Your task to perform on an android device: remove spam from my inbox in the gmail app Image 0: 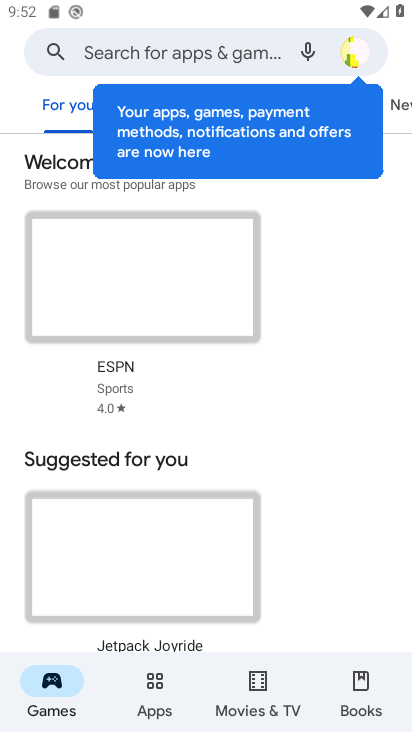
Step 0: drag from (200, 619) to (357, 309)
Your task to perform on an android device: remove spam from my inbox in the gmail app Image 1: 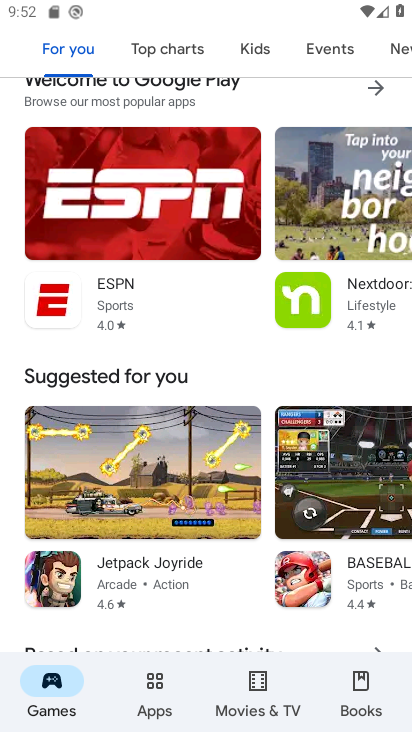
Step 1: press home button
Your task to perform on an android device: remove spam from my inbox in the gmail app Image 2: 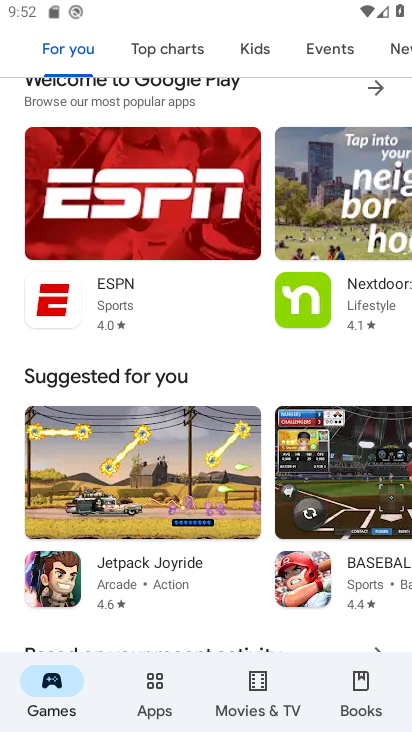
Step 2: drag from (357, 309) to (384, 518)
Your task to perform on an android device: remove spam from my inbox in the gmail app Image 3: 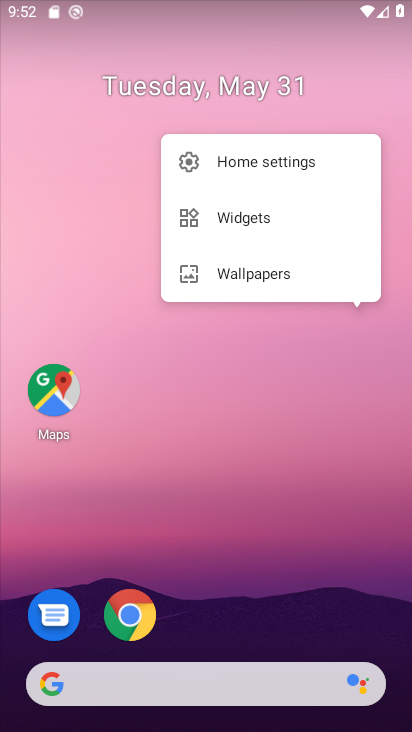
Step 3: drag from (237, 635) to (205, 46)
Your task to perform on an android device: remove spam from my inbox in the gmail app Image 4: 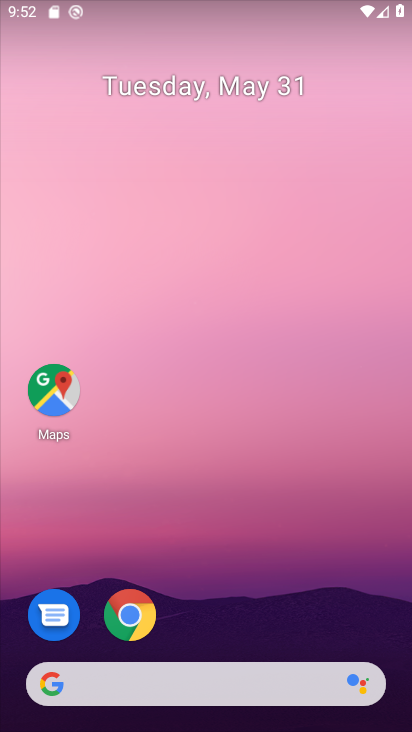
Step 4: drag from (253, 508) to (289, 48)
Your task to perform on an android device: remove spam from my inbox in the gmail app Image 5: 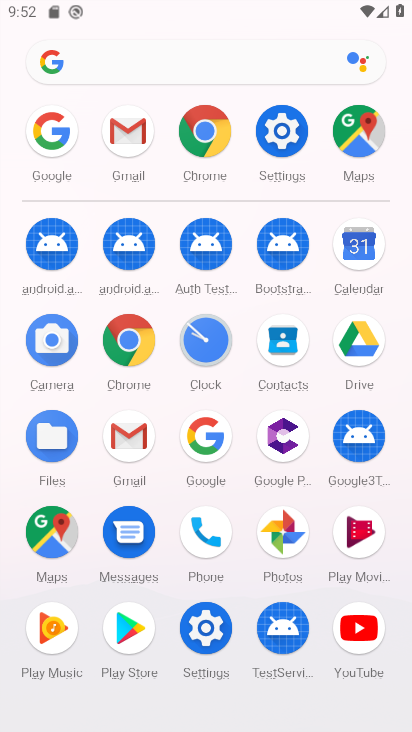
Step 5: click (120, 439)
Your task to perform on an android device: remove spam from my inbox in the gmail app Image 6: 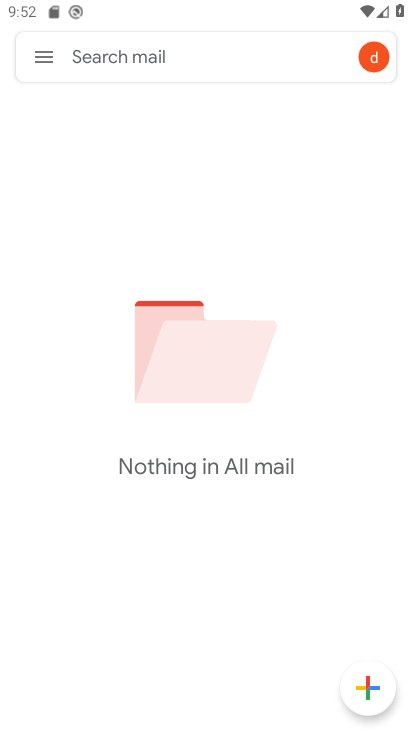
Step 6: click (49, 63)
Your task to perform on an android device: remove spam from my inbox in the gmail app Image 7: 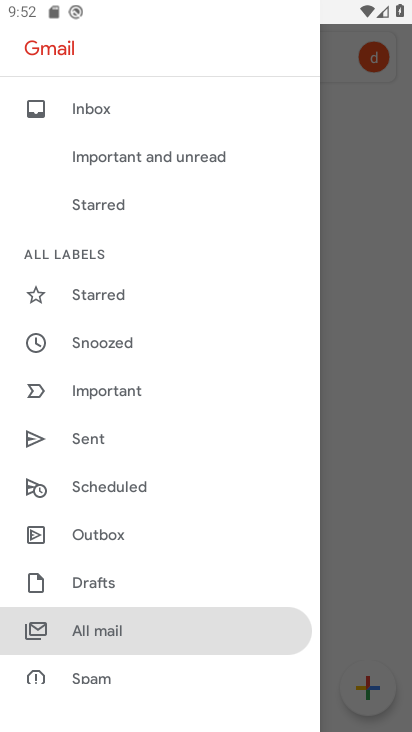
Step 7: click (126, 677)
Your task to perform on an android device: remove spam from my inbox in the gmail app Image 8: 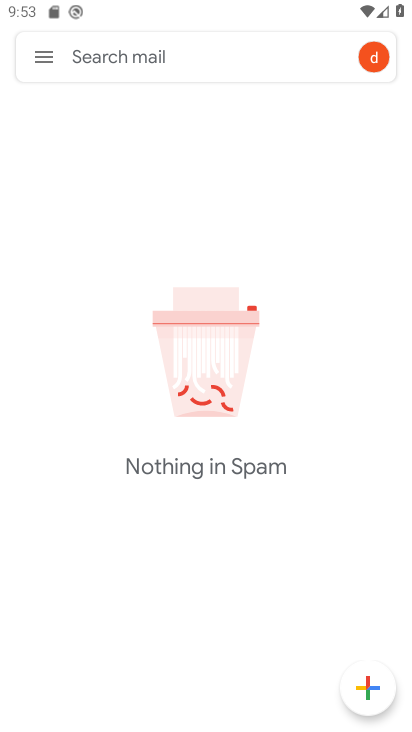
Step 8: task complete